Your task to perform on an android device: delete a single message in the gmail app Image 0: 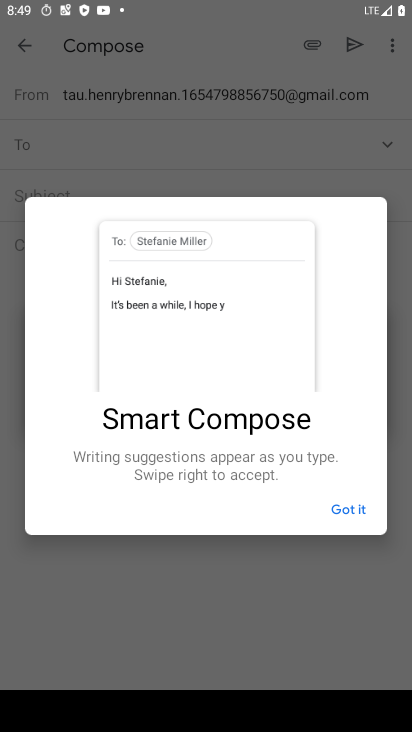
Step 0: press home button
Your task to perform on an android device: delete a single message in the gmail app Image 1: 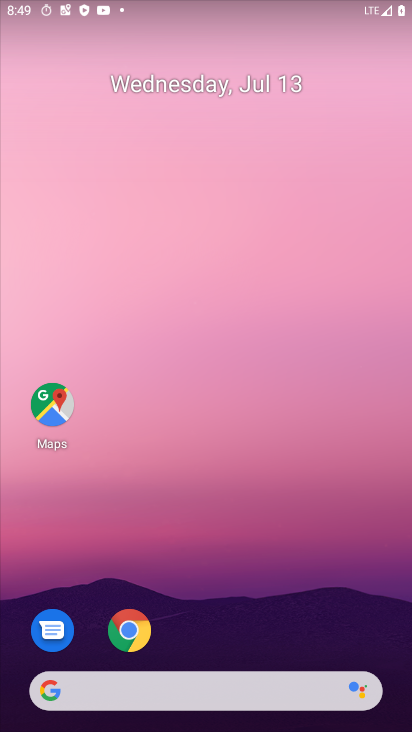
Step 1: drag from (342, 619) to (350, 196)
Your task to perform on an android device: delete a single message in the gmail app Image 2: 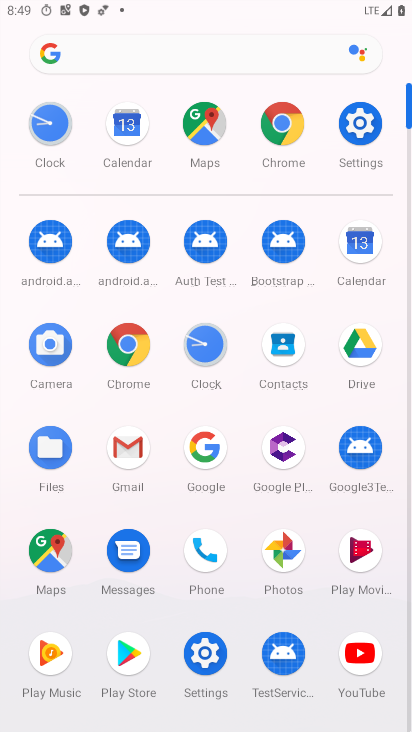
Step 2: click (123, 453)
Your task to perform on an android device: delete a single message in the gmail app Image 3: 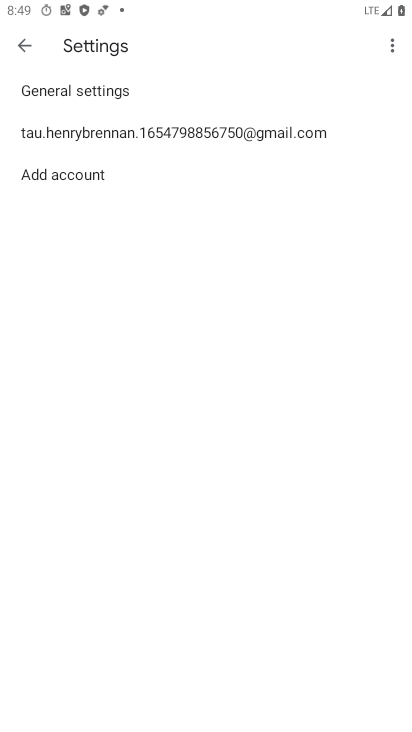
Step 3: press back button
Your task to perform on an android device: delete a single message in the gmail app Image 4: 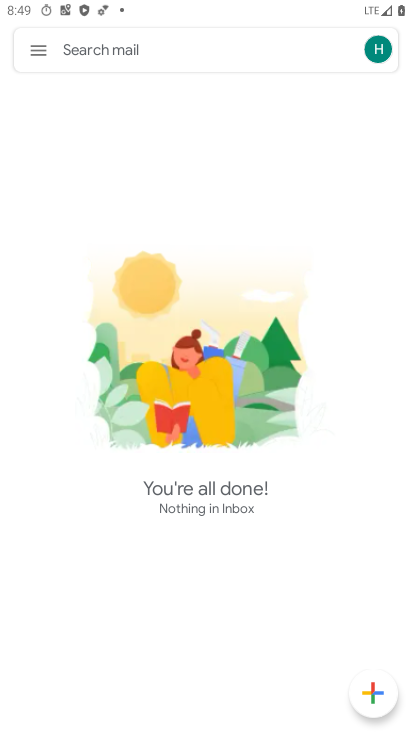
Step 4: click (40, 48)
Your task to perform on an android device: delete a single message in the gmail app Image 5: 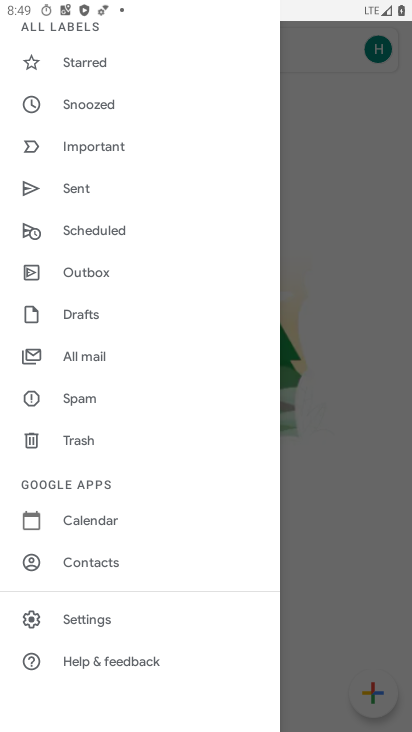
Step 5: drag from (181, 260) to (183, 394)
Your task to perform on an android device: delete a single message in the gmail app Image 6: 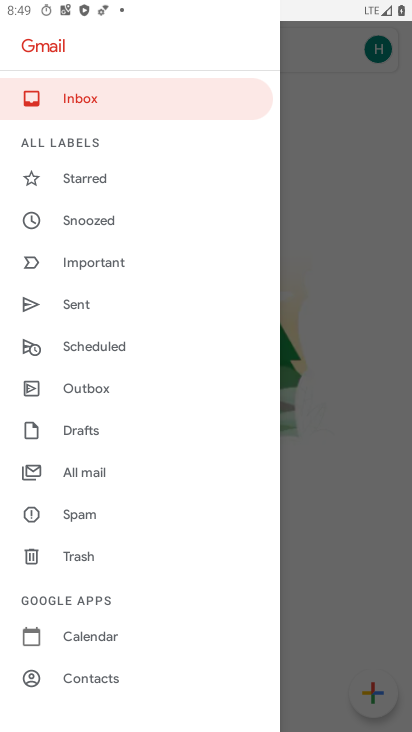
Step 6: drag from (201, 424) to (205, 365)
Your task to perform on an android device: delete a single message in the gmail app Image 7: 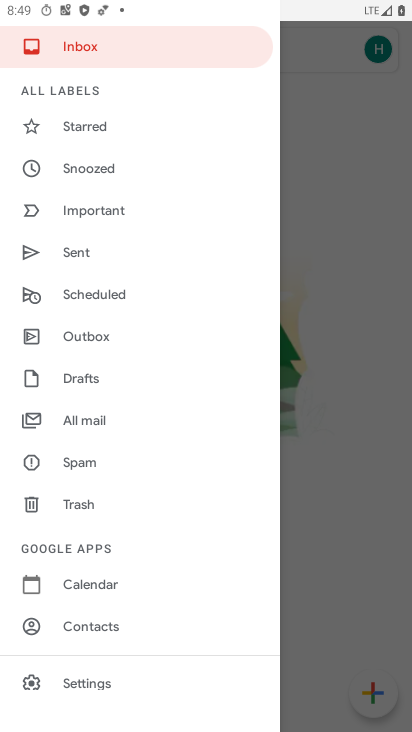
Step 7: drag from (196, 460) to (210, 306)
Your task to perform on an android device: delete a single message in the gmail app Image 8: 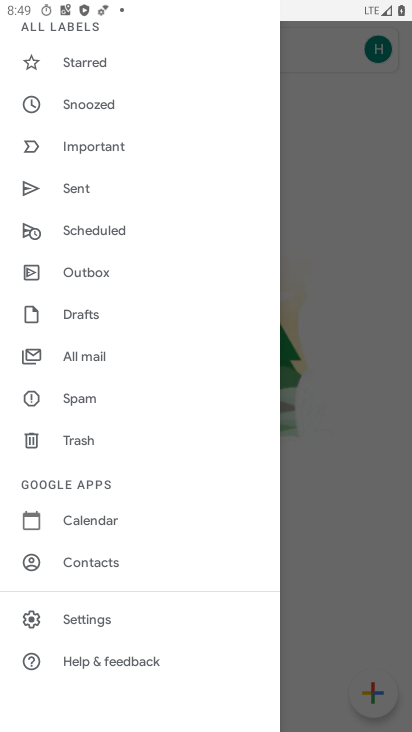
Step 8: drag from (215, 453) to (219, 305)
Your task to perform on an android device: delete a single message in the gmail app Image 9: 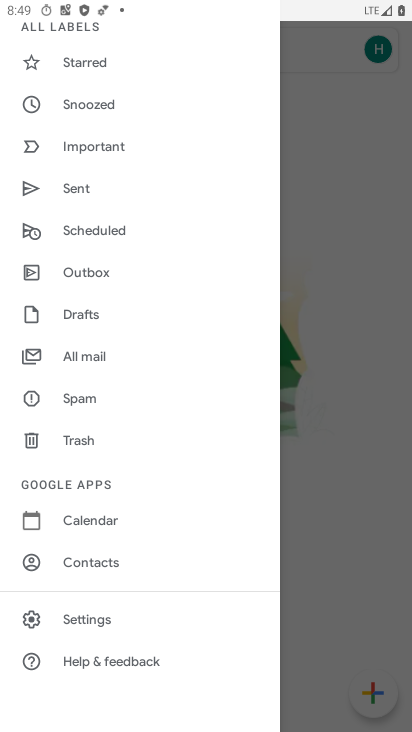
Step 9: click (125, 343)
Your task to perform on an android device: delete a single message in the gmail app Image 10: 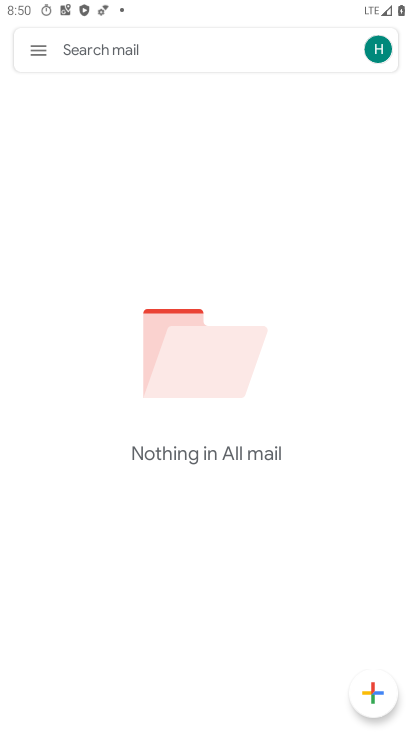
Step 10: task complete